Your task to perform on an android device: Open sound settings Image 0: 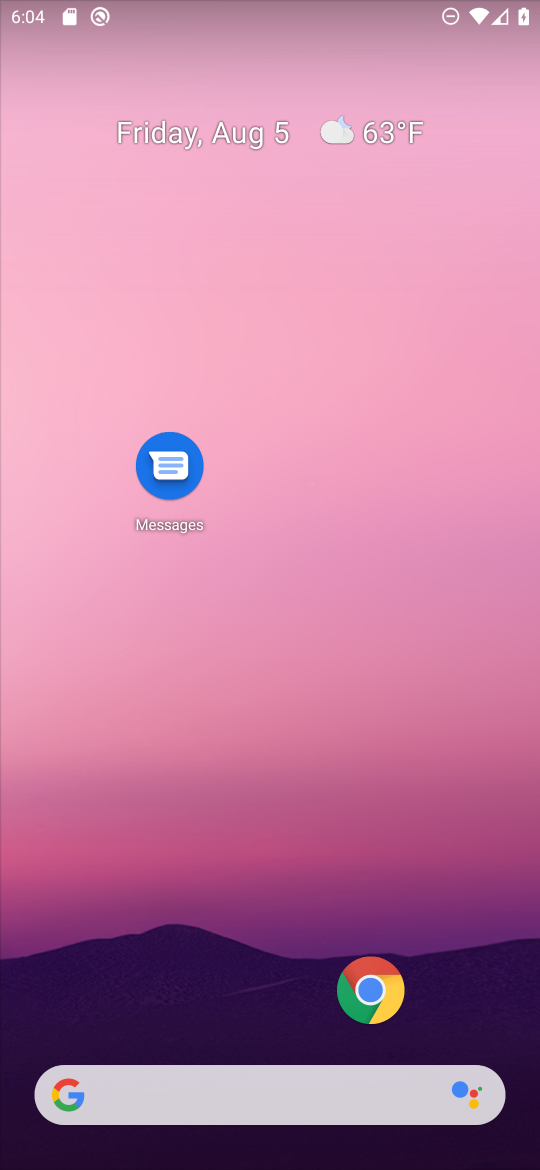
Step 0: drag from (213, 1067) to (143, 495)
Your task to perform on an android device: Open sound settings Image 1: 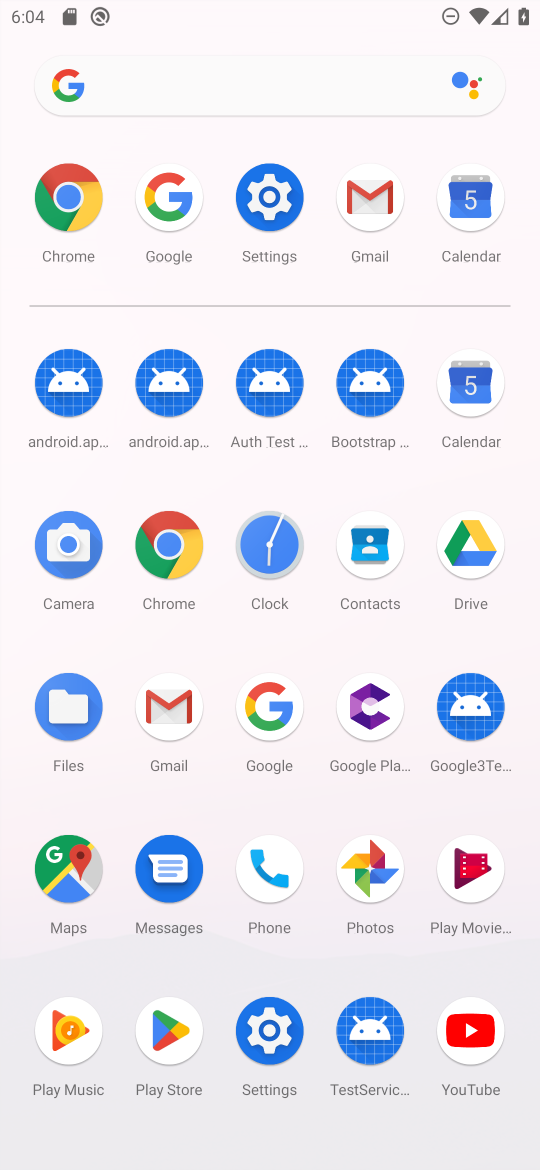
Step 1: click (298, 198)
Your task to perform on an android device: Open sound settings Image 2: 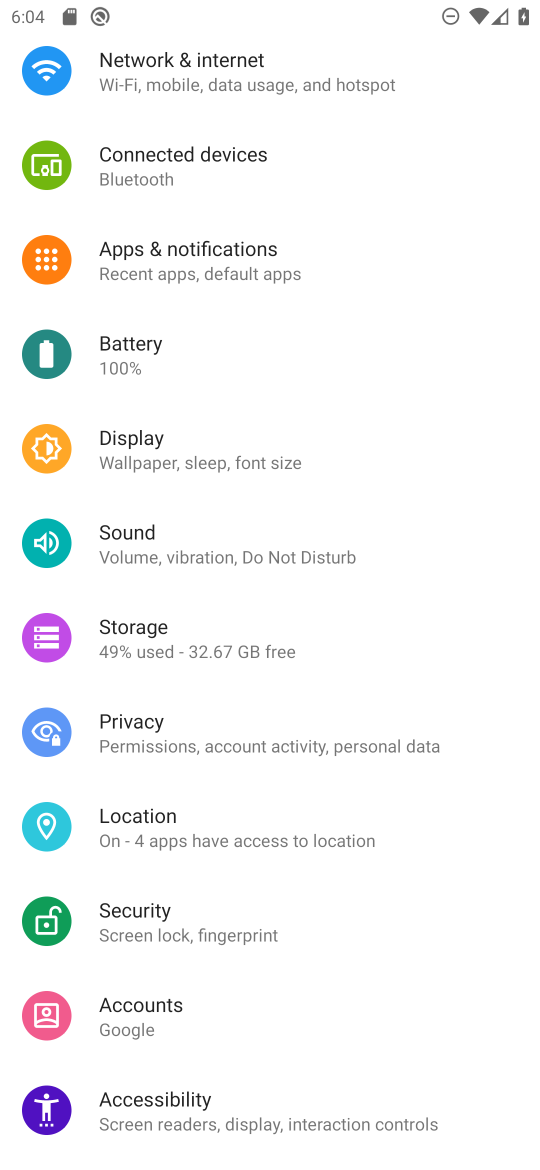
Step 2: click (169, 545)
Your task to perform on an android device: Open sound settings Image 3: 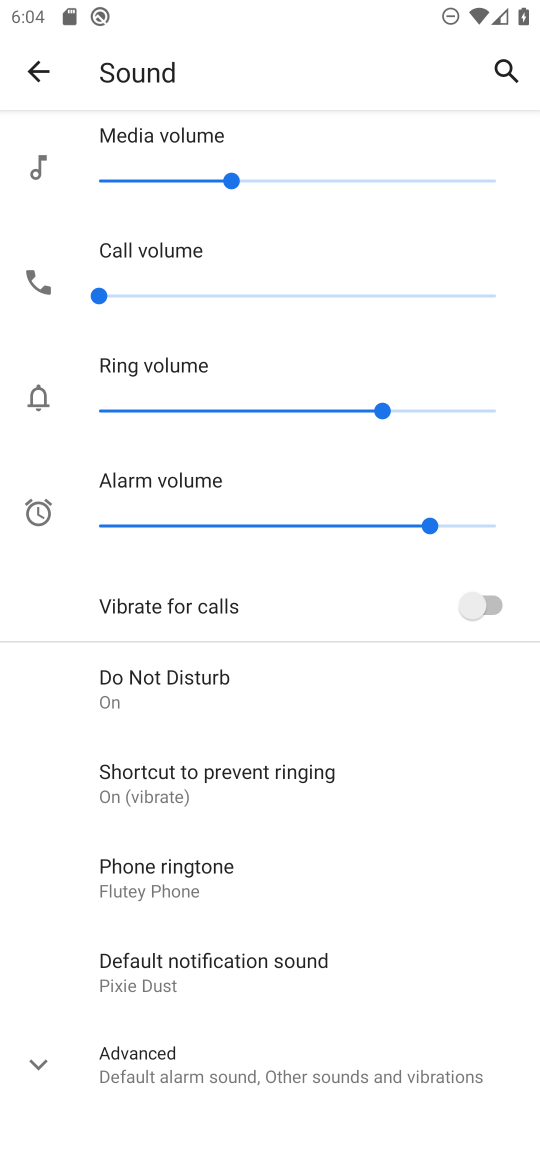
Step 3: task complete